Your task to perform on an android device: turn on data saver in the chrome app Image 0: 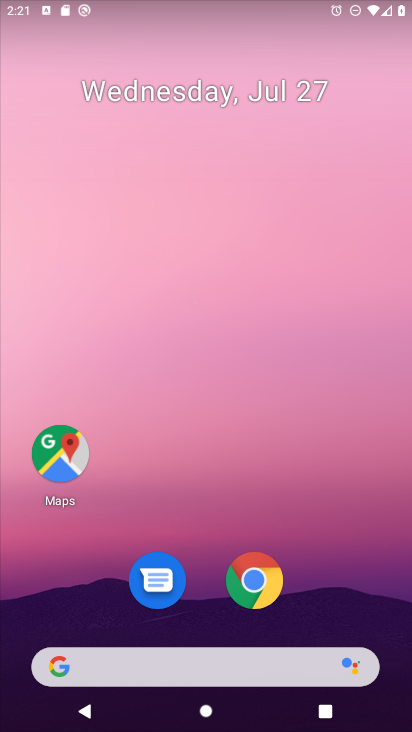
Step 0: click (250, 582)
Your task to perform on an android device: turn on data saver in the chrome app Image 1: 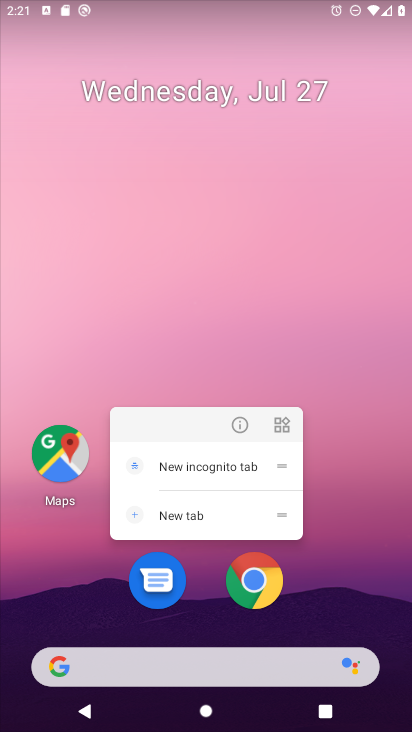
Step 1: click (251, 580)
Your task to perform on an android device: turn on data saver in the chrome app Image 2: 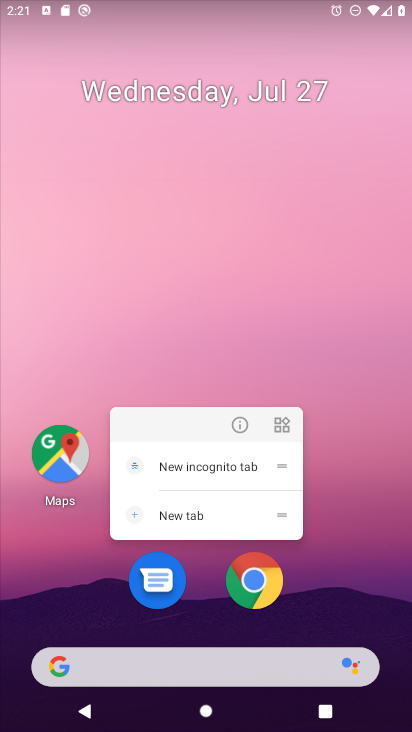
Step 2: click (251, 580)
Your task to perform on an android device: turn on data saver in the chrome app Image 3: 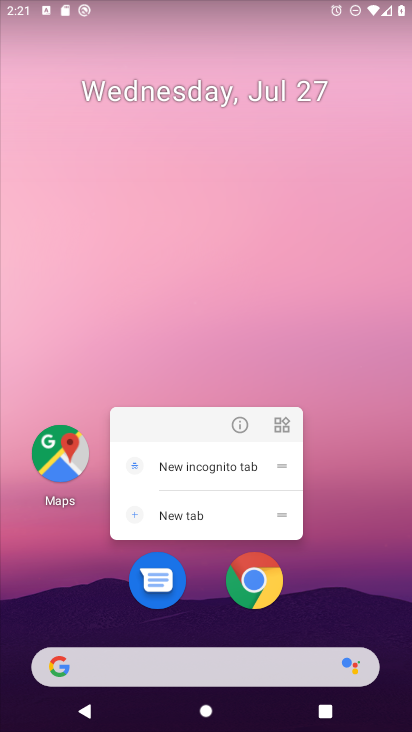
Step 3: click (254, 576)
Your task to perform on an android device: turn on data saver in the chrome app Image 4: 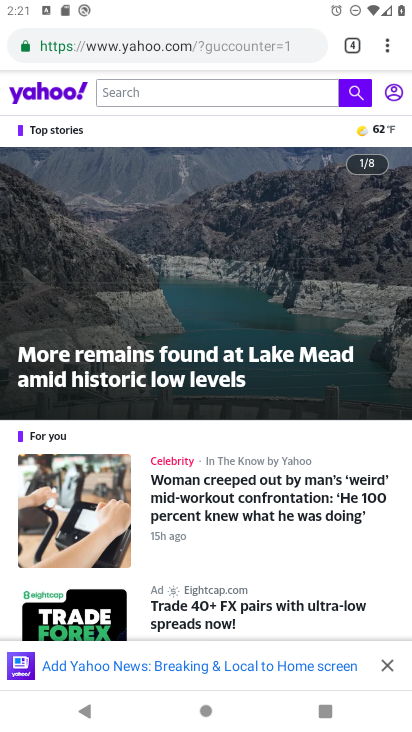
Step 4: click (388, 45)
Your task to perform on an android device: turn on data saver in the chrome app Image 5: 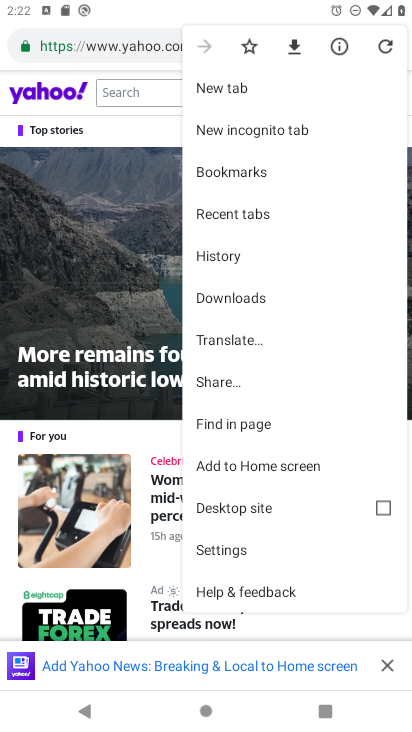
Step 5: click (222, 559)
Your task to perform on an android device: turn on data saver in the chrome app Image 6: 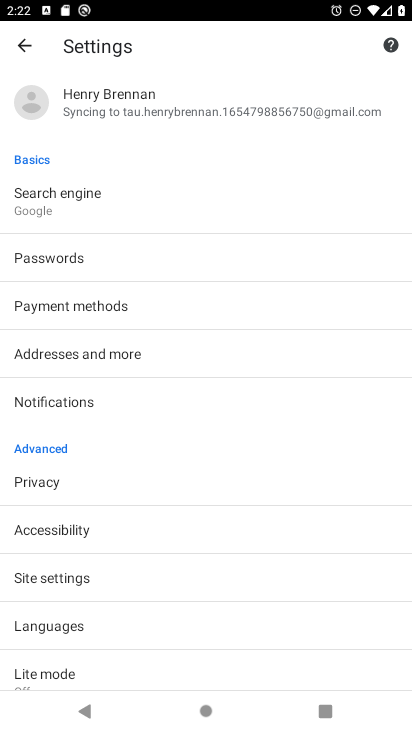
Step 6: click (58, 667)
Your task to perform on an android device: turn on data saver in the chrome app Image 7: 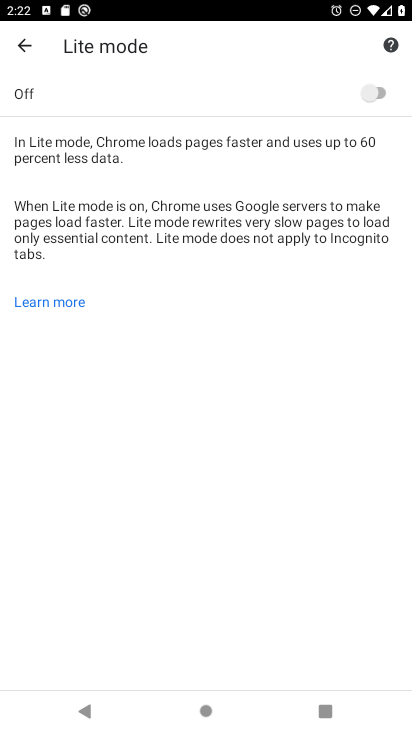
Step 7: click (380, 86)
Your task to perform on an android device: turn on data saver in the chrome app Image 8: 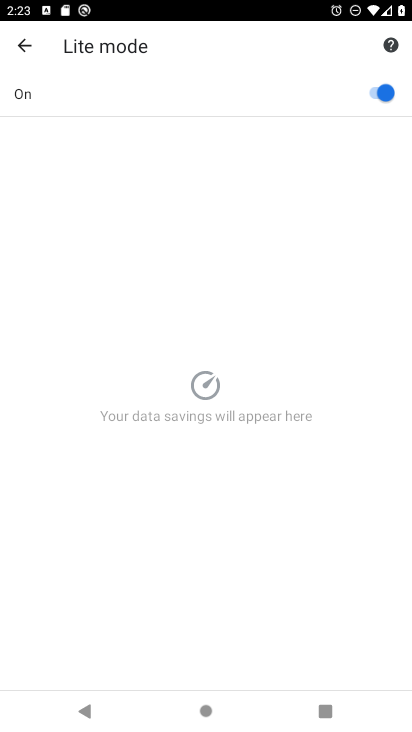
Step 8: task complete